Your task to perform on an android device: Show me the best rated power washer on Home Depot. Image 0: 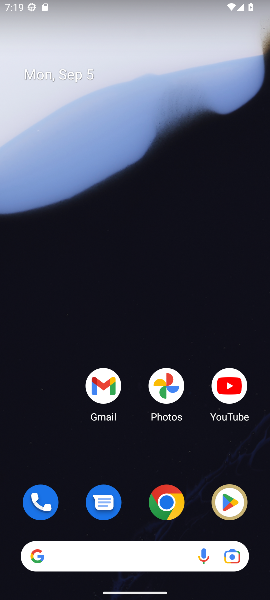
Step 0: drag from (200, 469) to (107, 9)
Your task to perform on an android device: Show me the best rated power washer on Home Depot. Image 1: 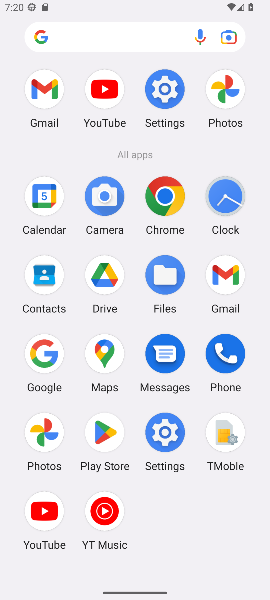
Step 1: click (43, 361)
Your task to perform on an android device: Show me the best rated power washer on Home Depot. Image 2: 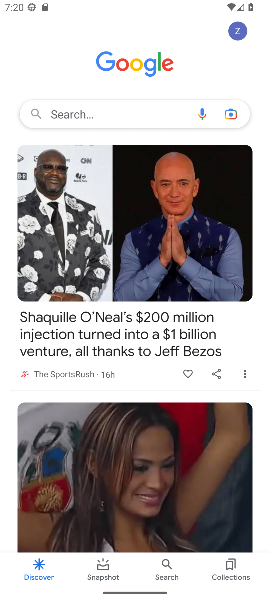
Step 2: click (97, 113)
Your task to perform on an android device: Show me the best rated power washer on Home Depot. Image 3: 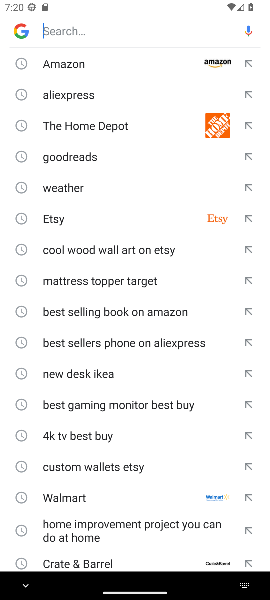
Step 3: type "best rated power washer on Home Depot"
Your task to perform on an android device: Show me the best rated power washer on Home Depot. Image 4: 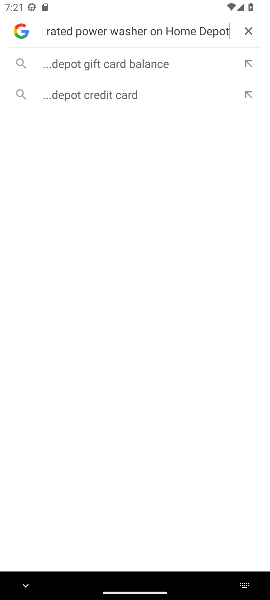
Step 4: click (90, 105)
Your task to perform on an android device: Show me the best rated power washer on Home Depot. Image 5: 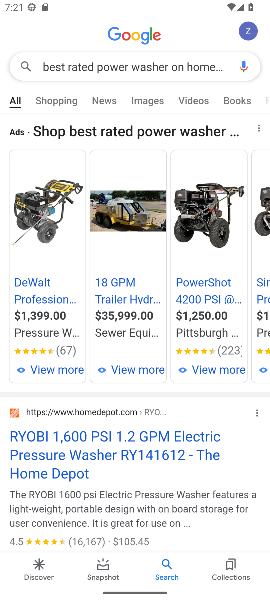
Step 5: task complete